Your task to perform on an android device: check out phone information Image 0: 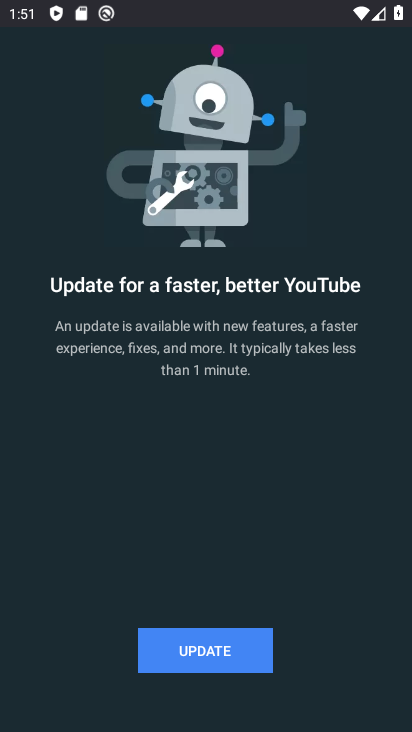
Step 0: press back button
Your task to perform on an android device: check out phone information Image 1: 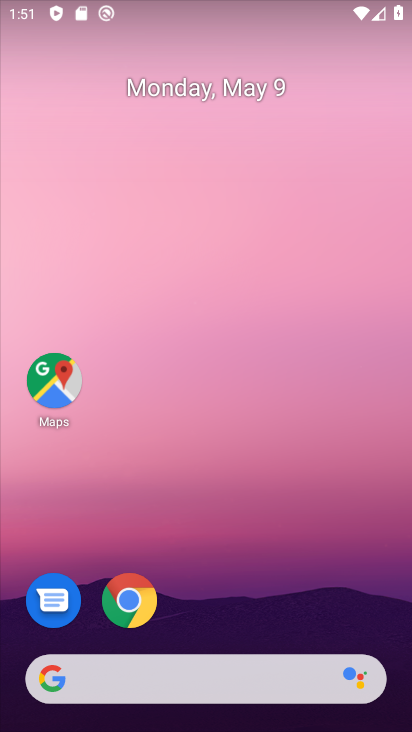
Step 1: drag from (329, 547) to (295, 4)
Your task to perform on an android device: check out phone information Image 2: 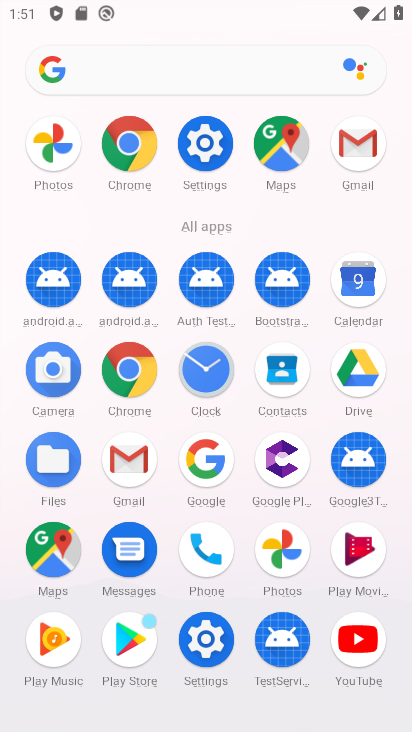
Step 2: click (207, 134)
Your task to perform on an android device: check out phone information Image 3: 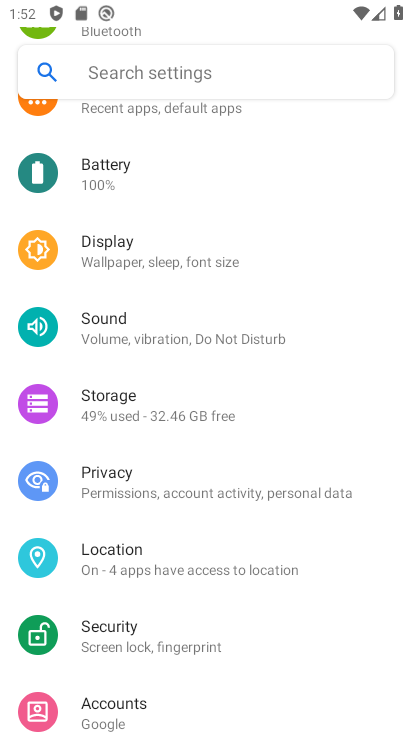
Step 3: drag from (257, 561) to (273, 155)
Your task to perform on an android device: check out phone information Image 4: 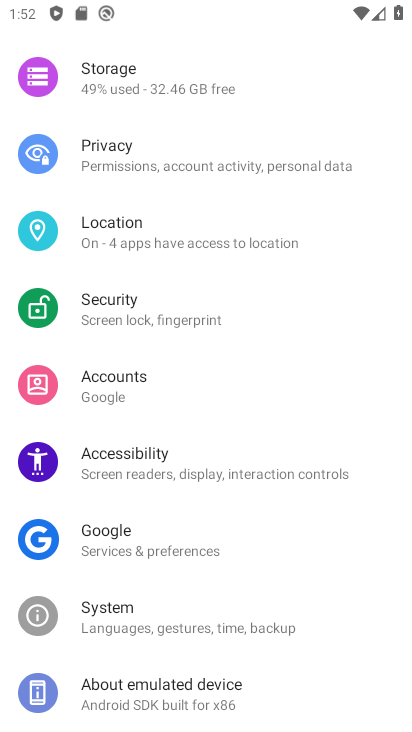
Step 4: click (200, 682)
Your task to perform on an android device: check out phone information Image 5: 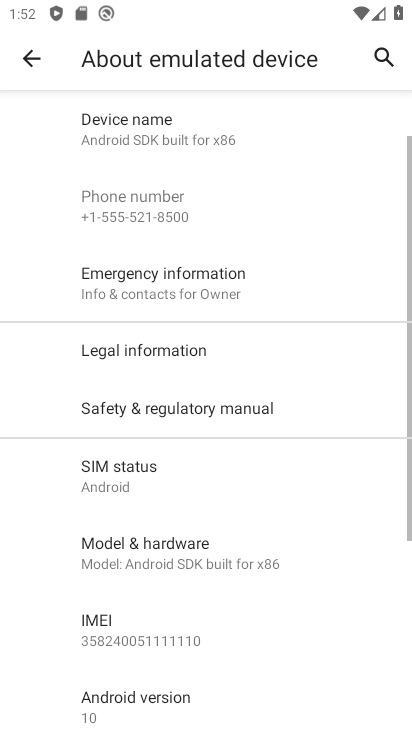
Step 5: drag from (250, 545) to (268, 101)
Your task to perform on an android device: check out phone information Image 6: 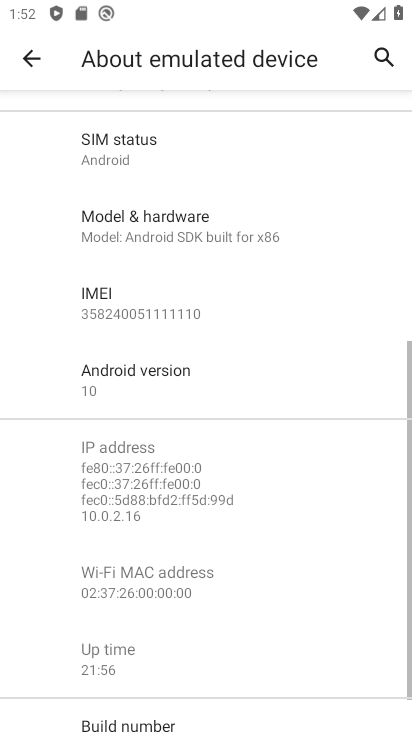
Step 6: drag from (236, 523) to (247, 154)
Your task to perform on an android device: check out phone information Image 7: 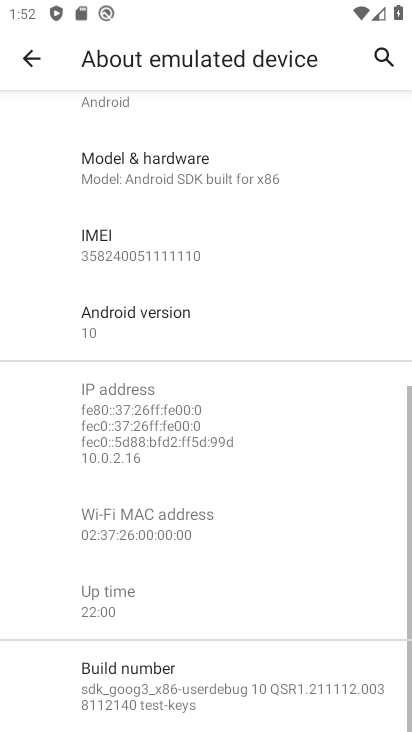
Step 7: click (161, 330)
Your task to perform on an android device: check out phone information Image 8: 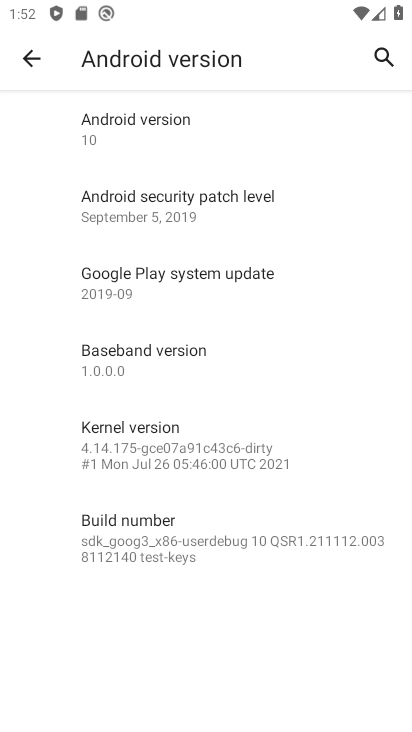
Step 8: task complete